Your task to perform on an android device: open app "The Home Depot" (install if not already installed) and go to login screen Image 0: 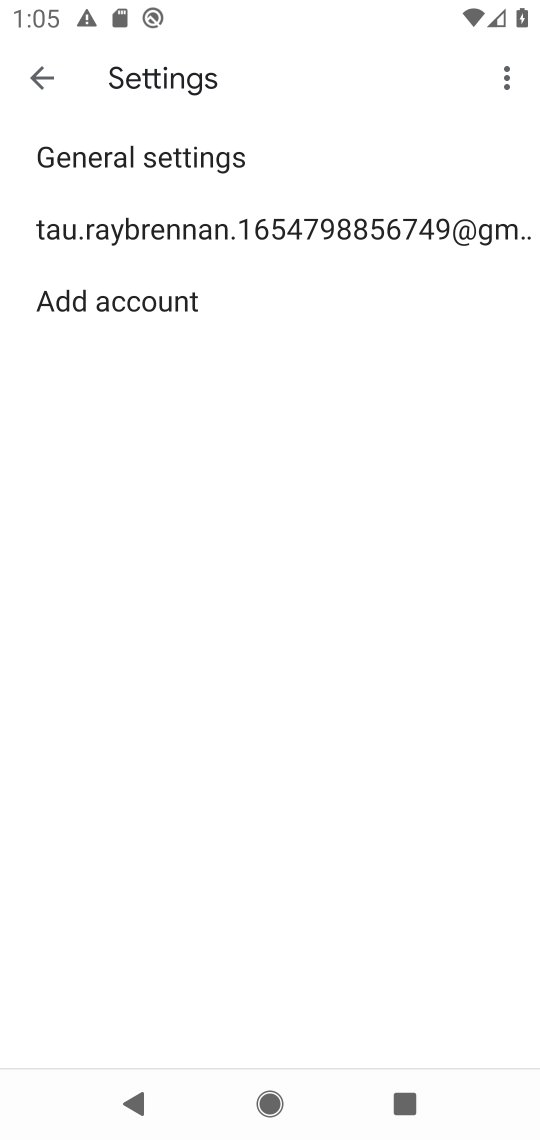
Step 0: press back button
Your task to perform on an android device: open app "The Home Depot" (install if not already installed) and go to login screen Image 1: 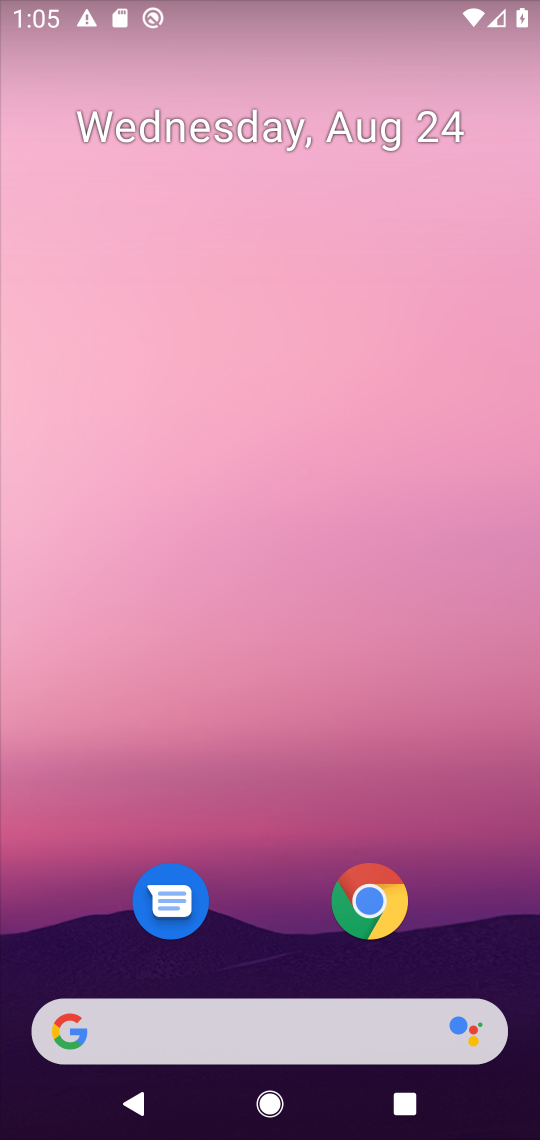
Step 1: drag from (296, 831) to (331, 75)
Your task to perform on an android device: open app "The Home Depot" (install if not already installed) and go to login screen Image 2: 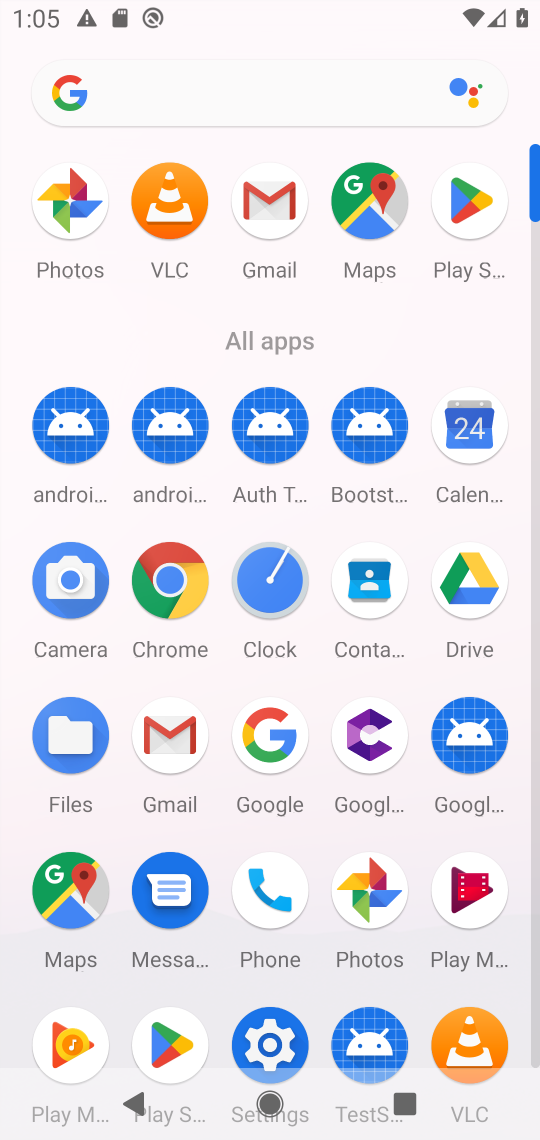
Step 2: click (470, 201)
Your task to perform on an android device: open app "The Home Depot" (install if not already installed) and go to login screen Image 3: 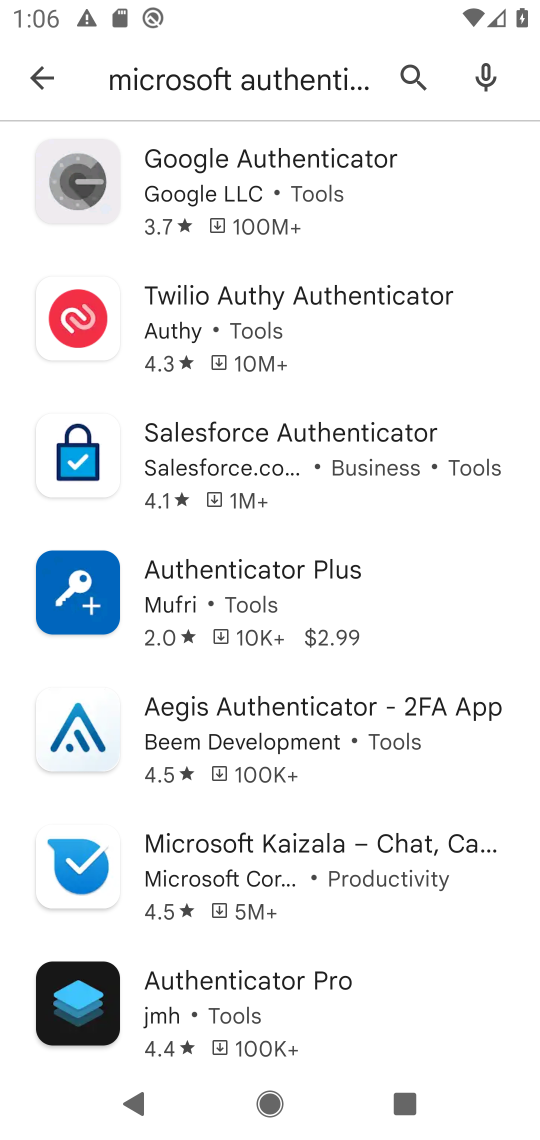
Step 3: click (403, 91)
Your task to perform on an android device: open app "The Home Depot" (install if not already installed) and go to login screen Image 4: 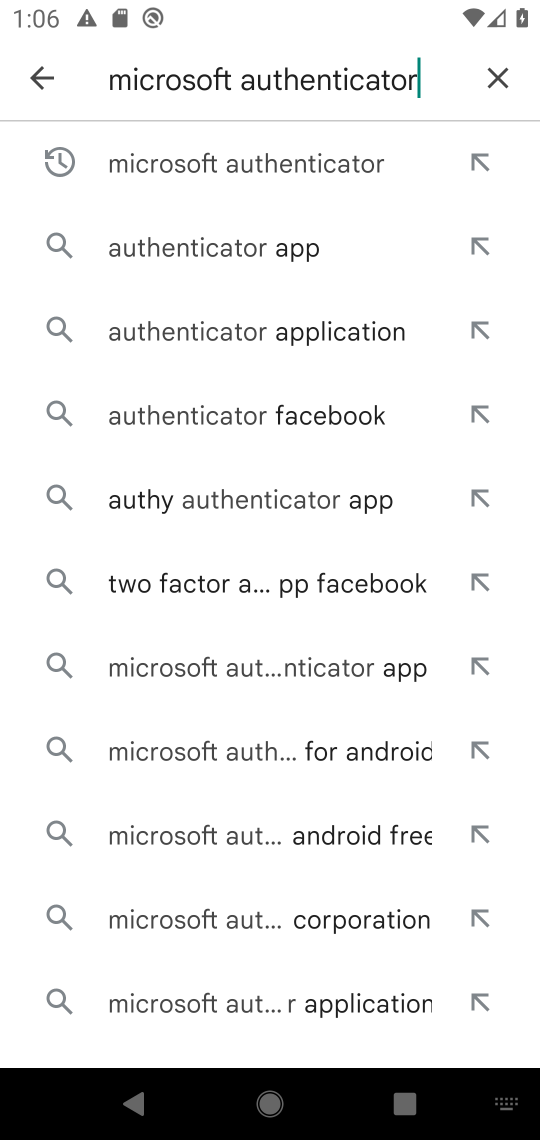
Step 4: click (489, 78)
Your task to perform on an android device: open app "The Home Depot" (install if not already installed) and go to login screen Image 5: 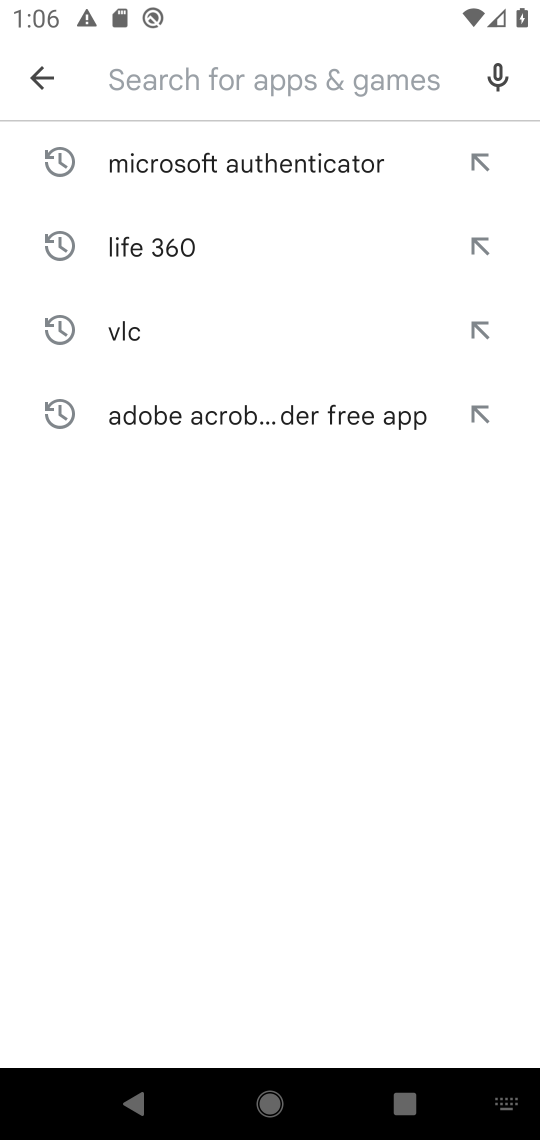
Step 5: click (154, 84)
Your task to perform on an android device: open app "The Home Depot" (install if not already installed) and go to login screen Image 6: 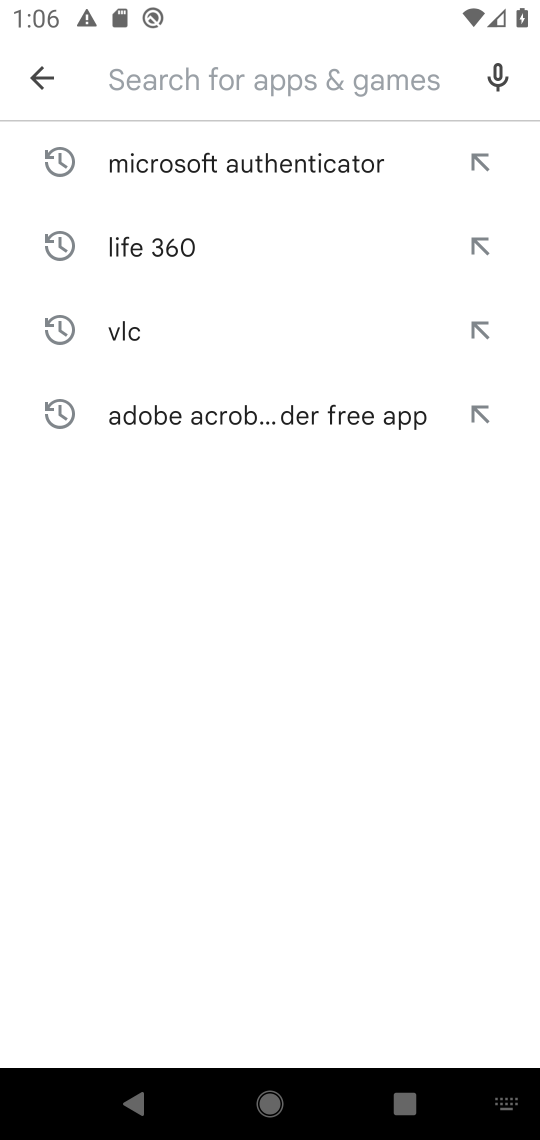
Step 6: type "The Home Depot"
Your task to perform on an android device: open app "The Home Depot" (install if not already installed) and go to login screen Image 7: 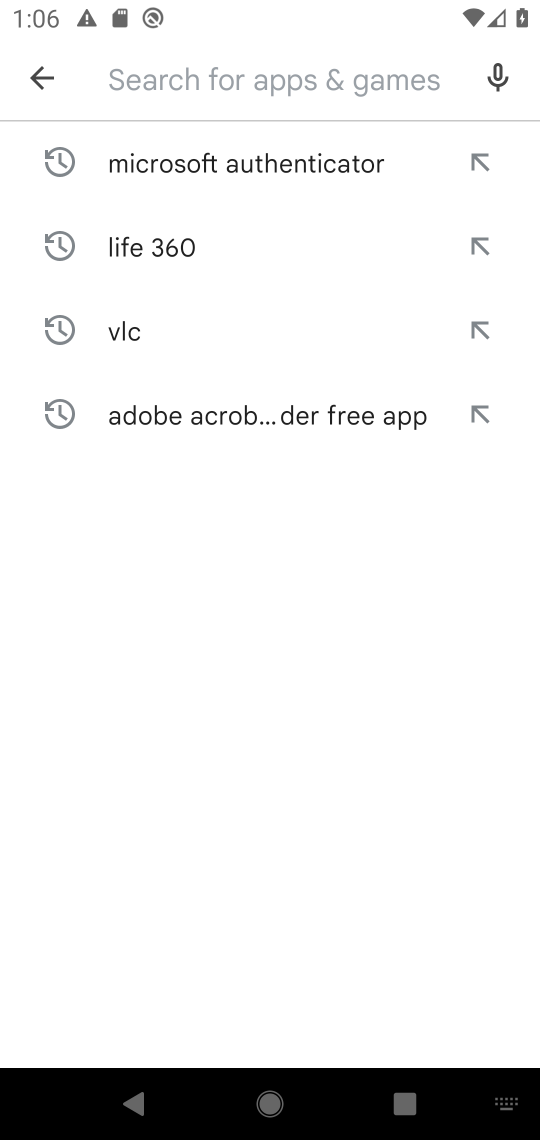
Step 7: click (353, 717)
Your task to perform on an android device: open app "The Home Depot" (install if not already installed) and go to login screen Image 8: 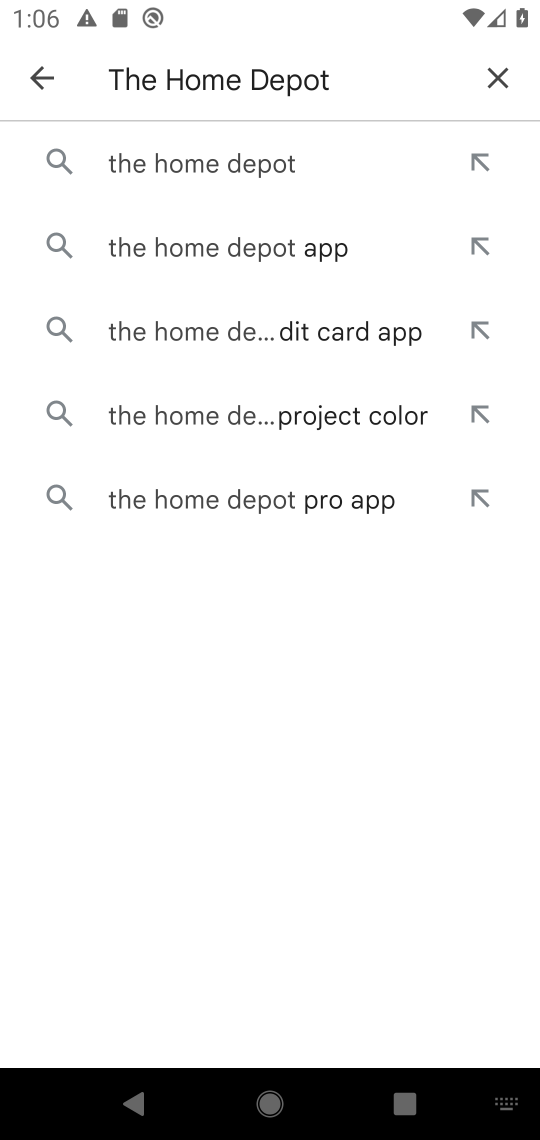
Step 8: click (217, 165)
Your task to perform on an android device: open app "The Home Depot" (install if not already installed) and go to login screen Image 9: 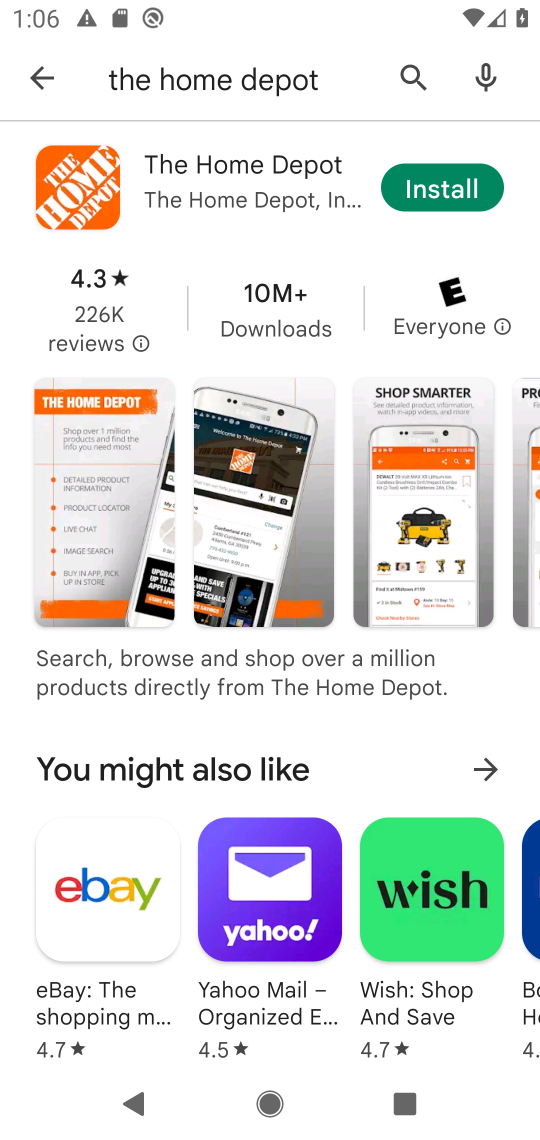
Step 9: click (439, 195)
Your task to perform on an android device: open app "The Home Depot" (install if not already installed) and go to login screen Image 10: 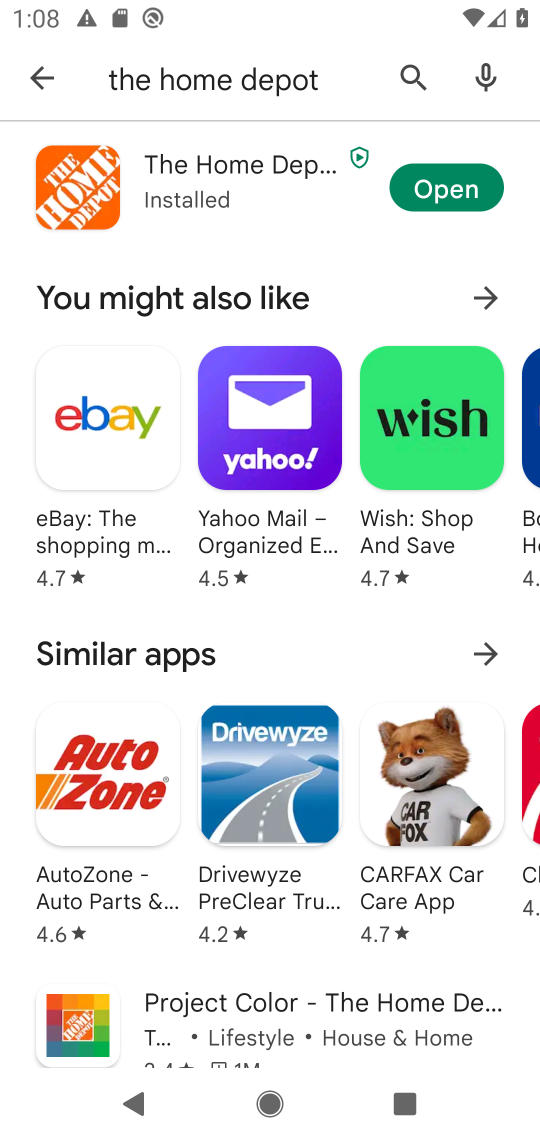
Step 10: click (423, 191)
Your task to perform on an android device: open app "The Home Depot" (install if not already installed) and go to login screen Image 11: 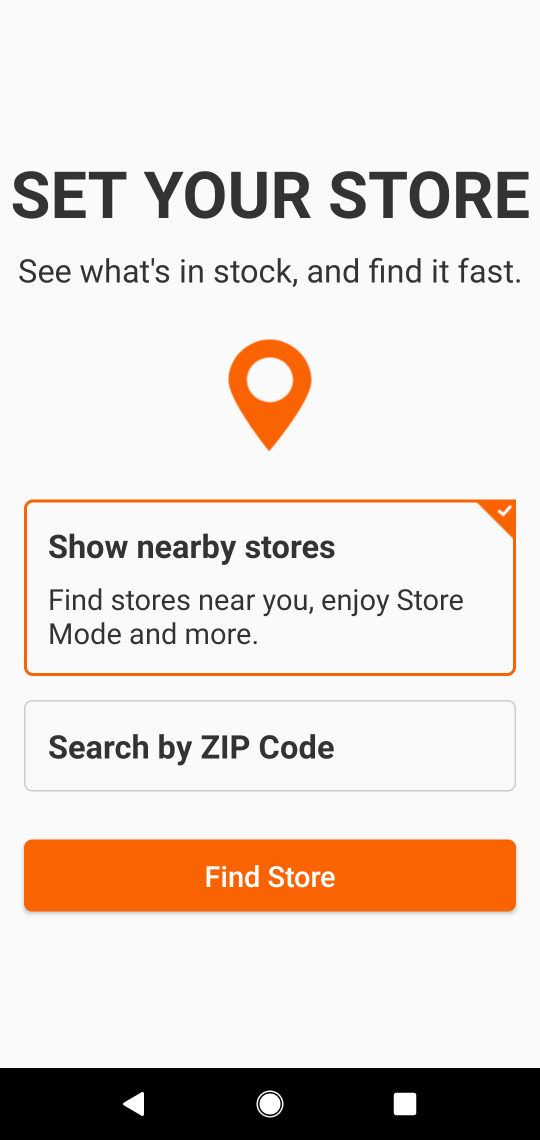
Step 11: task complete